Your task to perform on an android device: open chrome and create a bookmark for the current page Image 0: 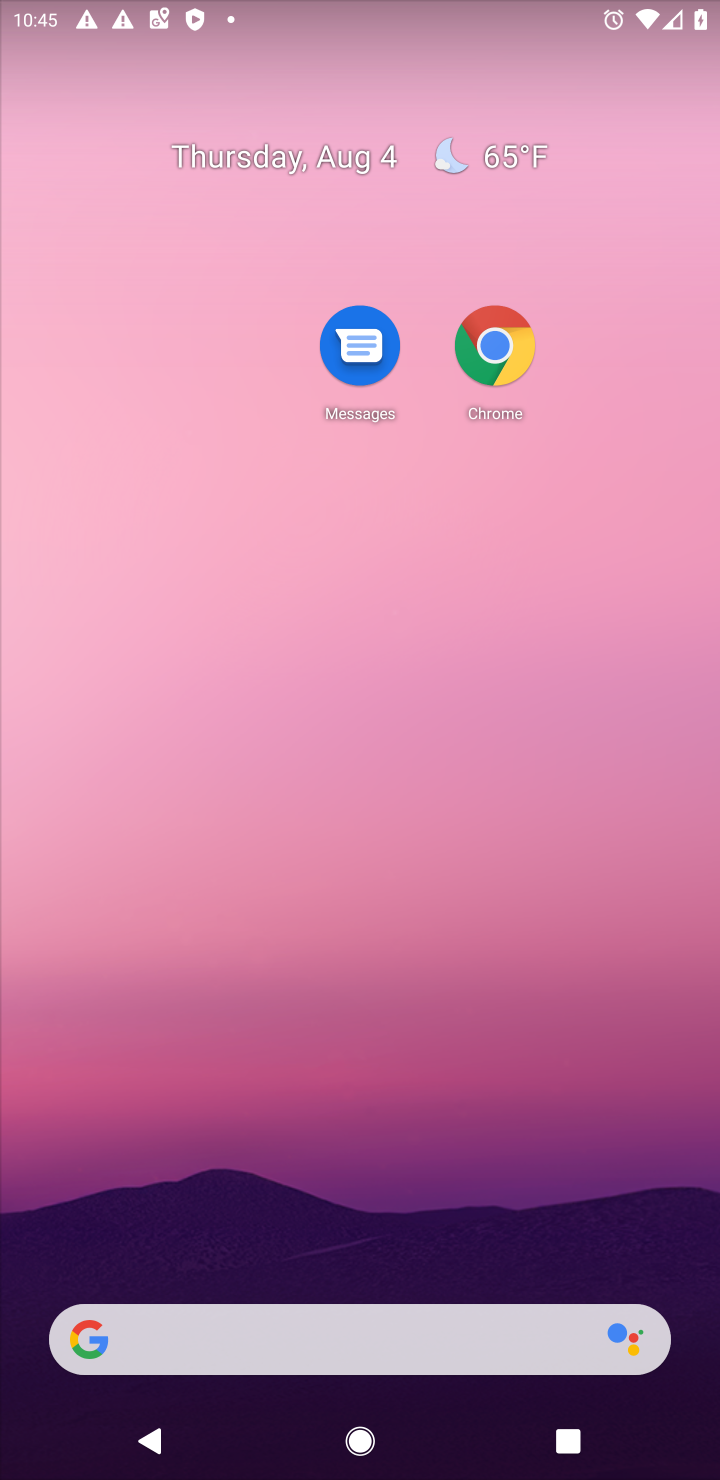
Step 0: drag from (568, 627) to (527, 0)
Your task to perform on an android device: open chrome and create a bookmark for the current page Image 1: 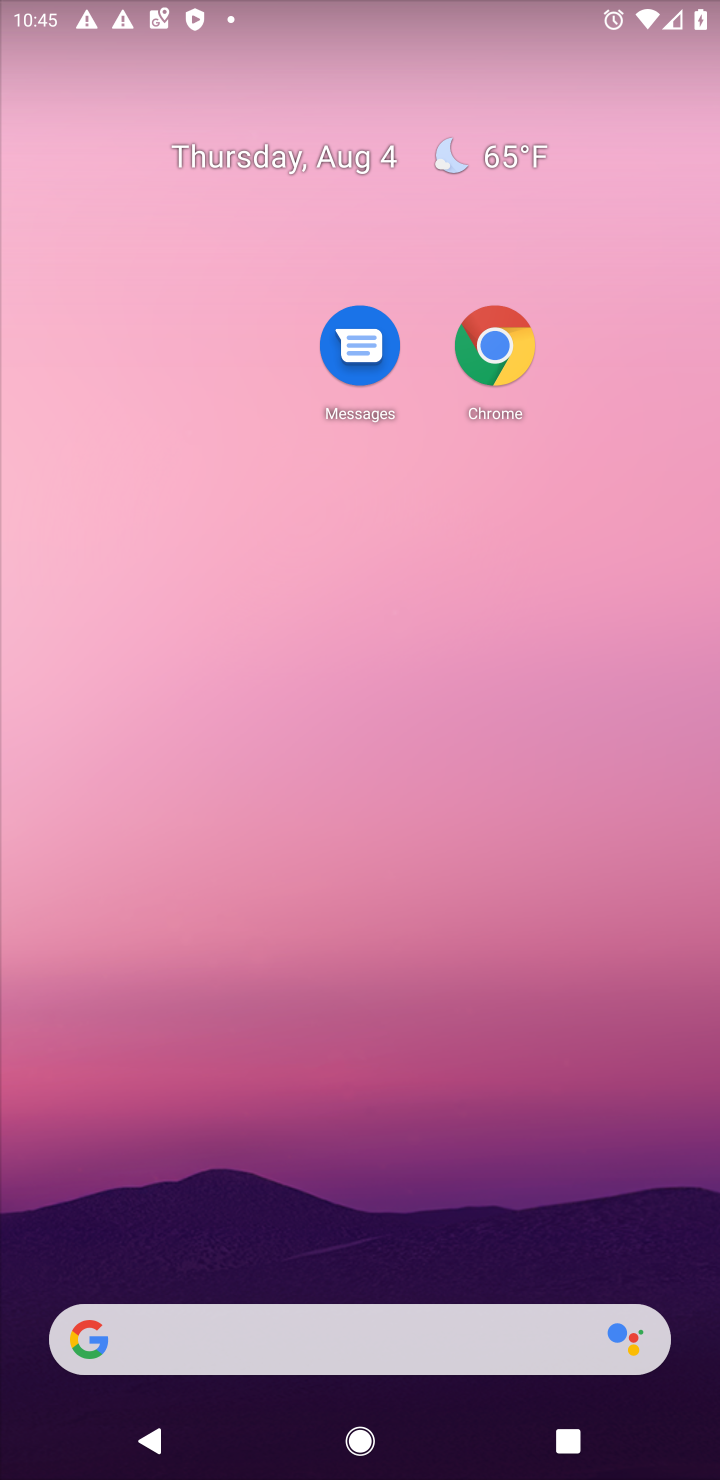
Step 1: drag from (478, 1149) to (461, 10)
Your task to perform on an android device: open chrome and create a bookmark for the current page Image 2: 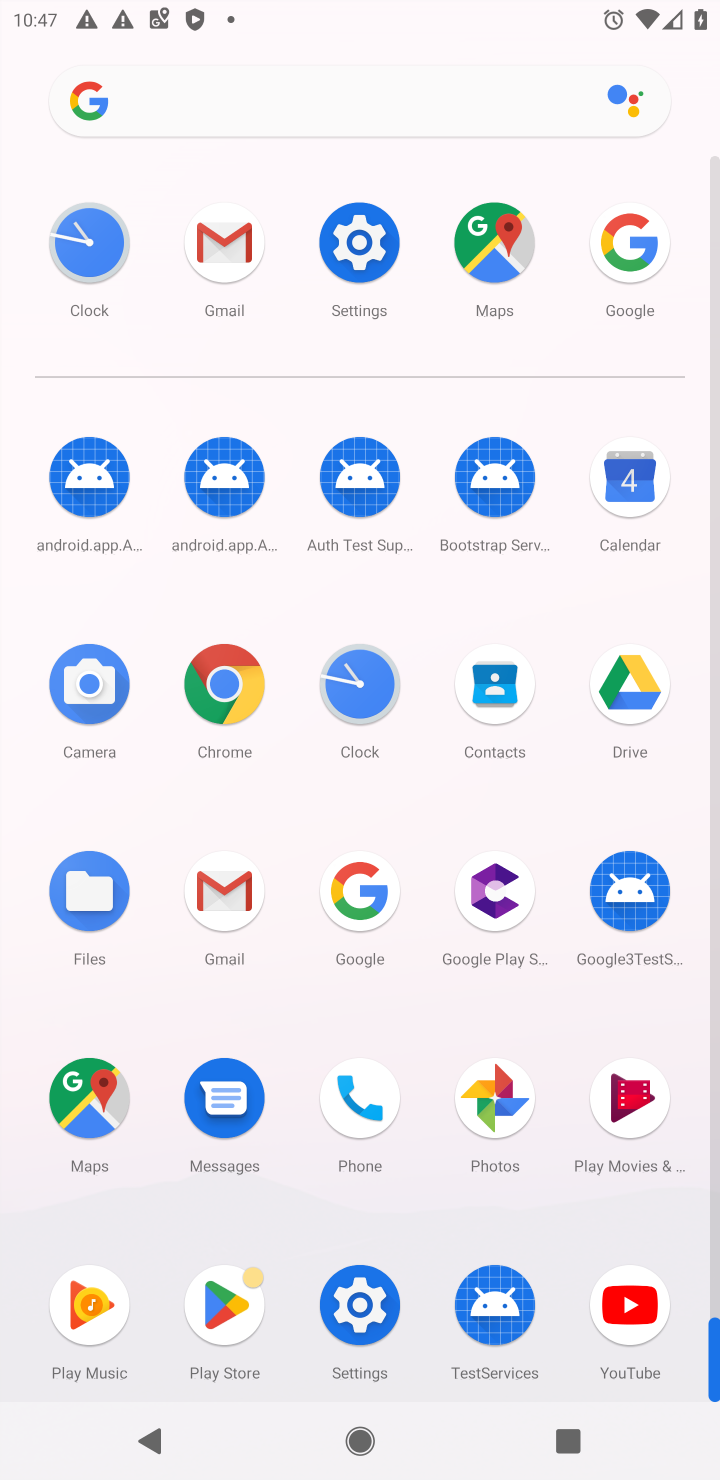
Step 2: click (244, 705)
Your task to perform on an android device: open chrome and create a bookmark for the current page Image 3: 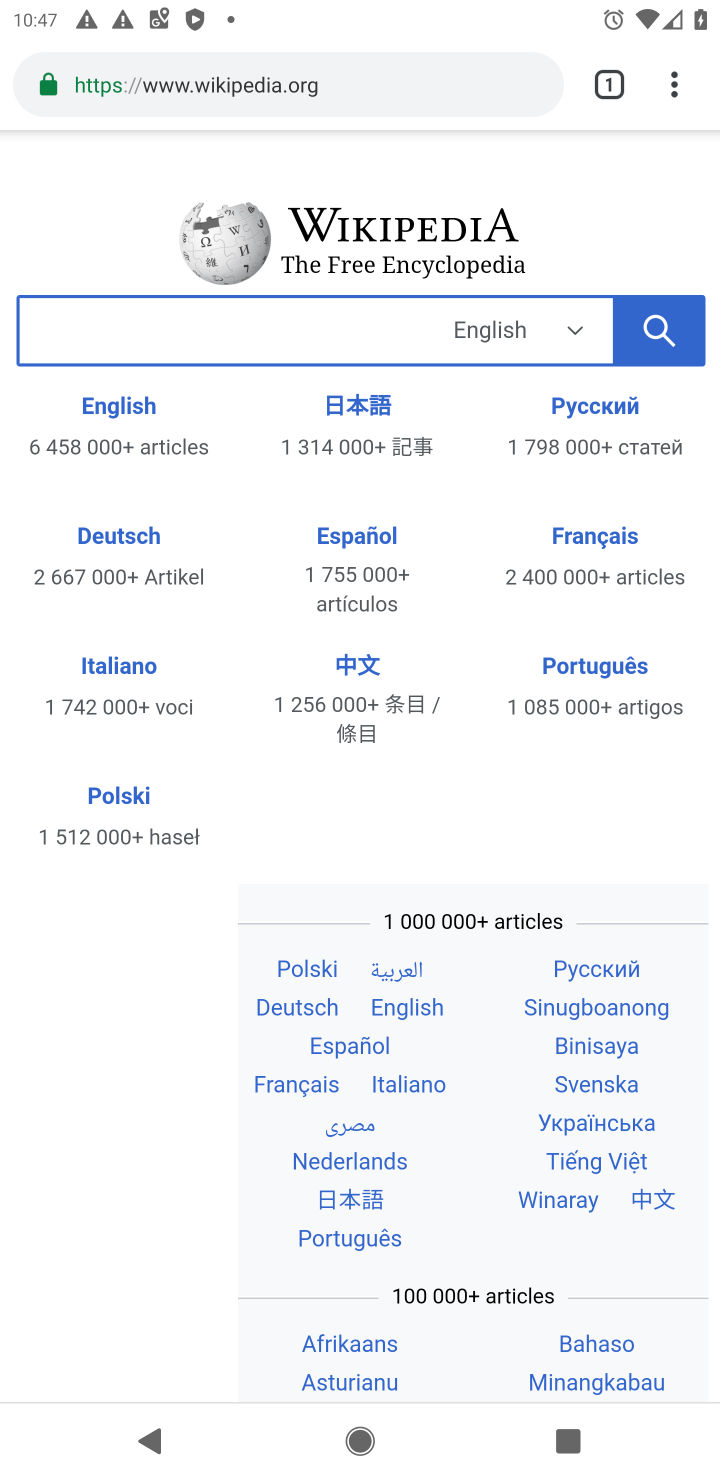
Step 3: drag from (679, 83) to (390, 312)
Your task to perform on an android device: open chrome and create a bookmark for the current page Image 4: 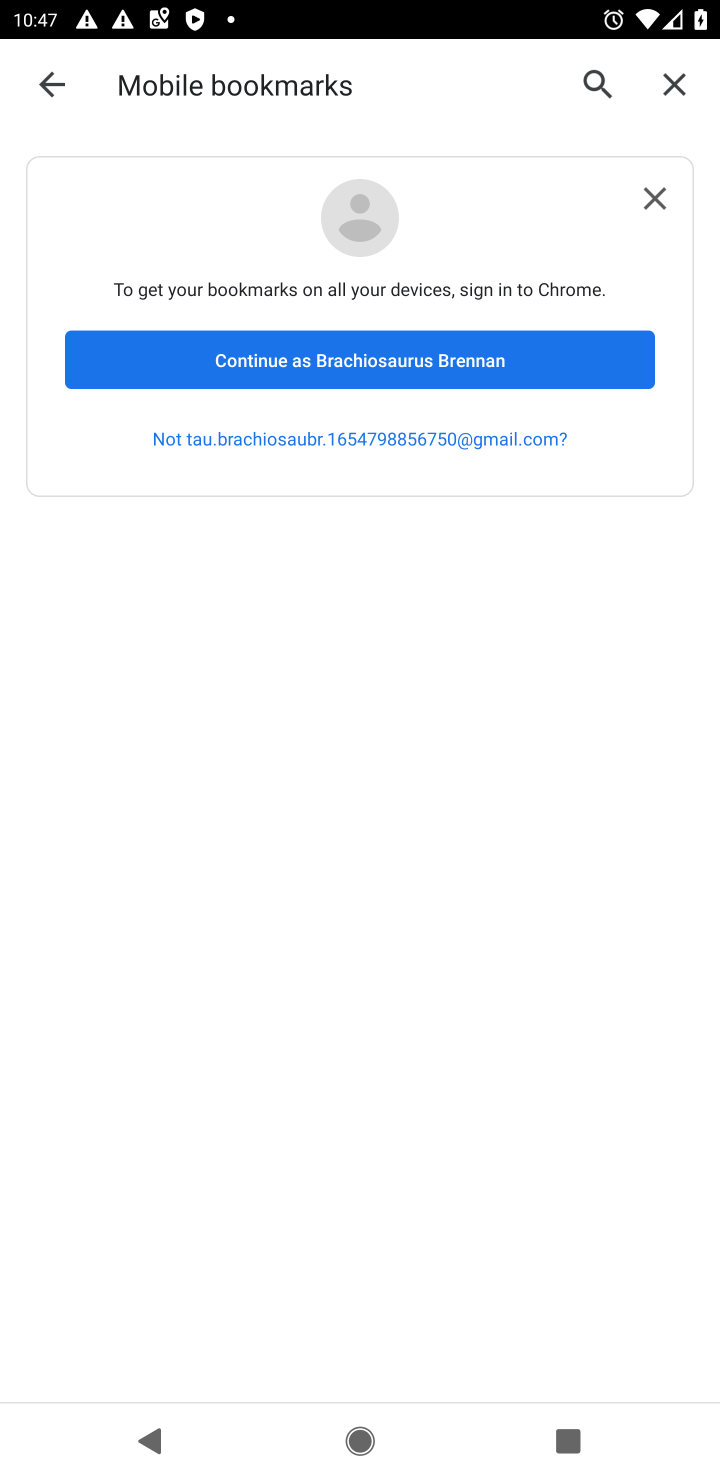
Step 4: click (364, 355)
Your task to perform on an android device: open chrome and create a bookmark for the current page Image 5: 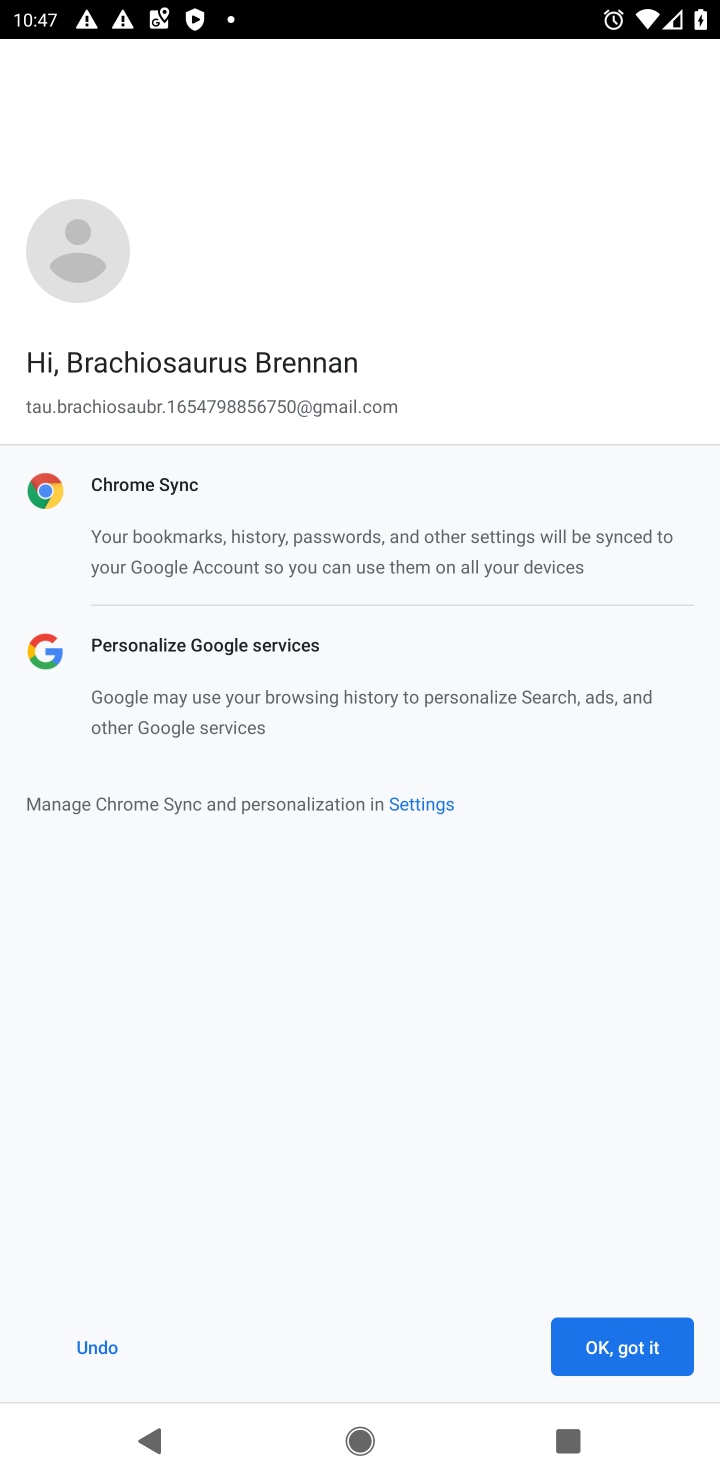
Step 5: click (662, 1343)
Your task to perform on an android device: open chrome and create a bookmark for the current page Image 6: 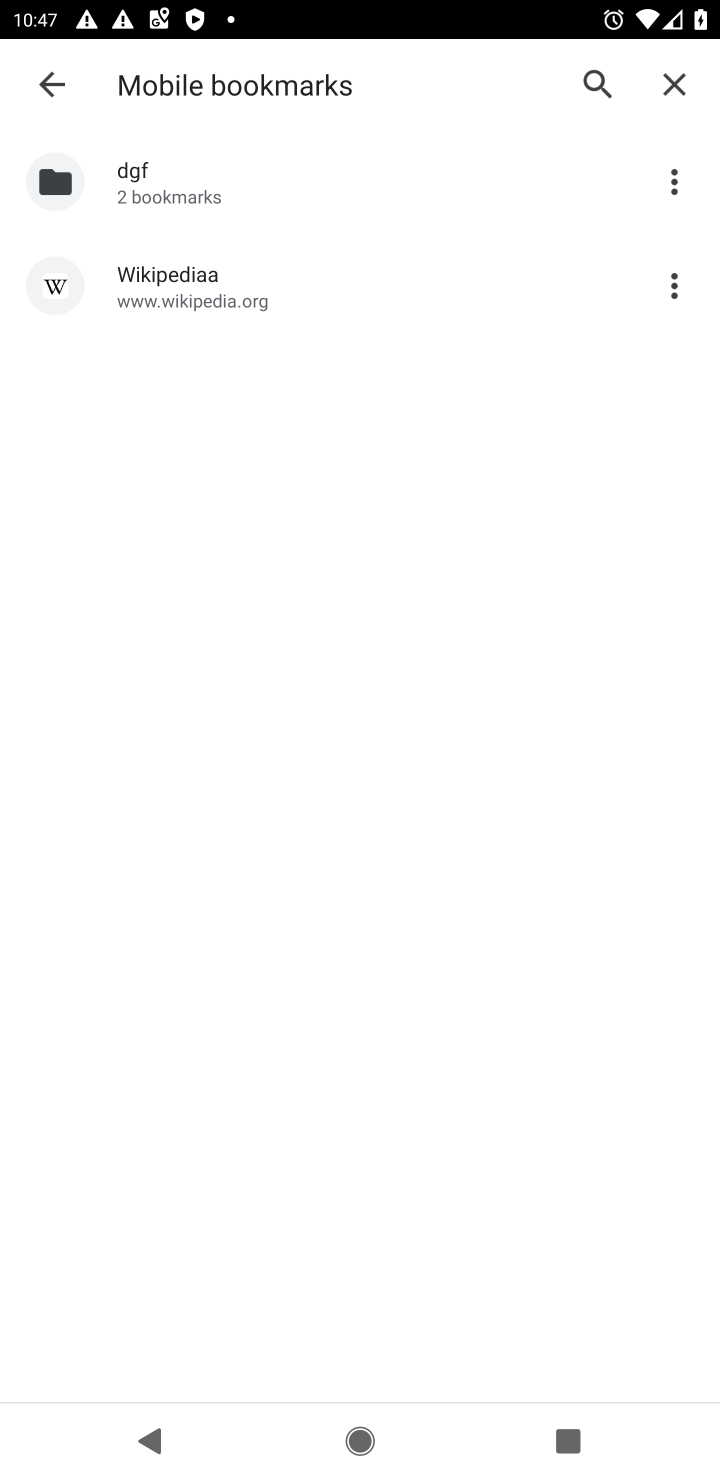
Step 6: task complete